Your task to perform on an android device: What is the recent news? Image 0: 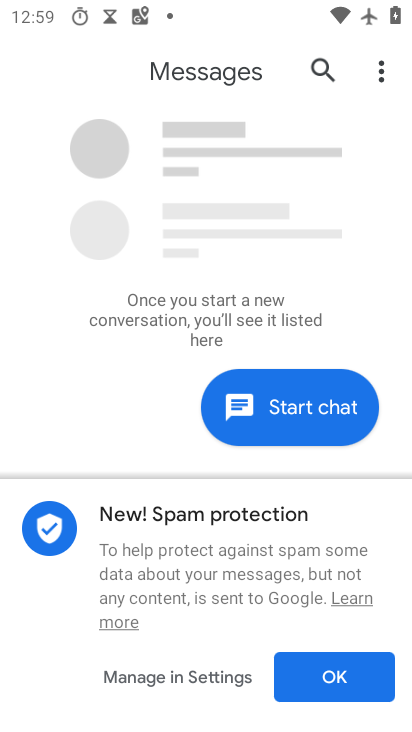
Step 0: press home button
Your task to perform on an android device: What is the recent news? Image 1: 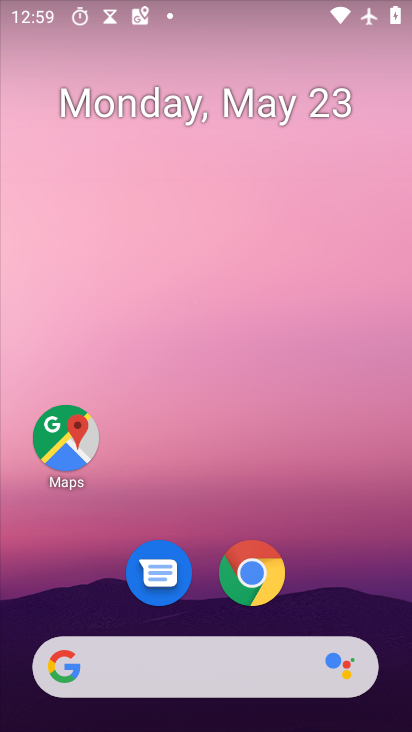
Step 1: click (68, 666)
Your task to perform on an android device: What is the recent news? Image 2: 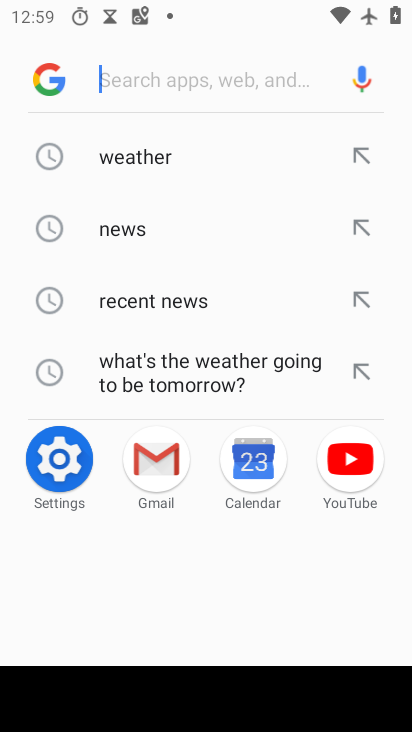
Step 2: click (169, 304)
Your task to perform on an android device: What is the recent news? Image 3: 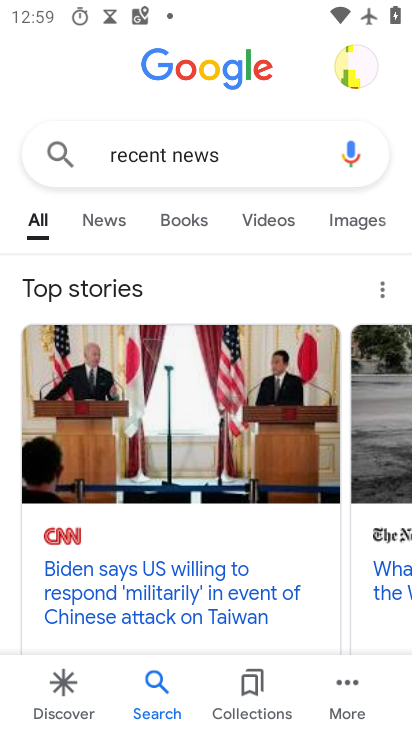
Step 3: click (120, 220)
Your task to perform on an android device: What is the recent news? Image 4: 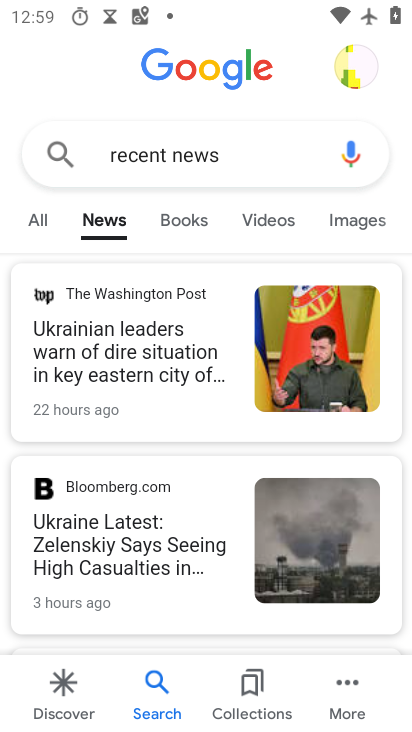
Step 4: task complete